Your task to perform on an android device: Add "beats solo 3" to the cart on newegg Image 0: 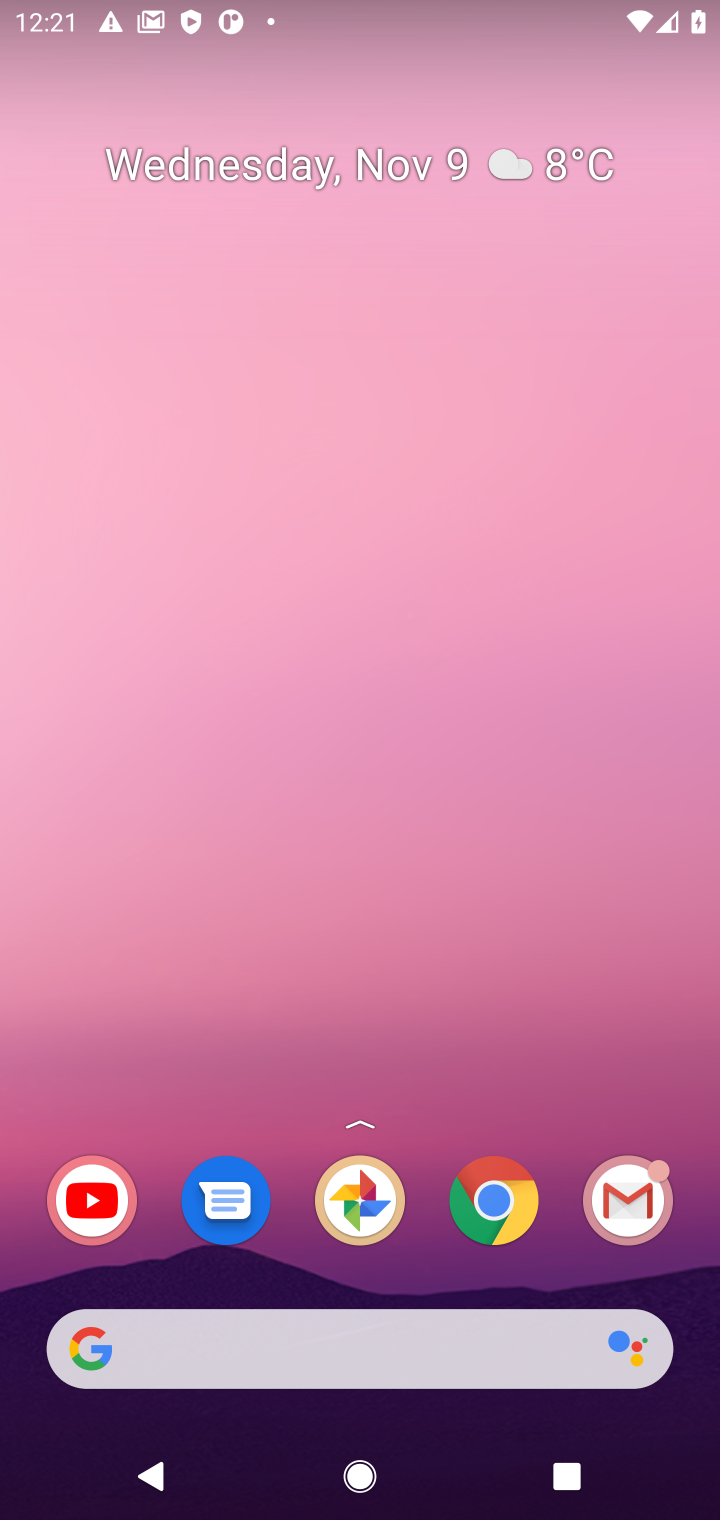
Step 0: click (491, 1374)
Your task to perform on an android device: Add "beats solo 3" to the cart on newegg Image 1: 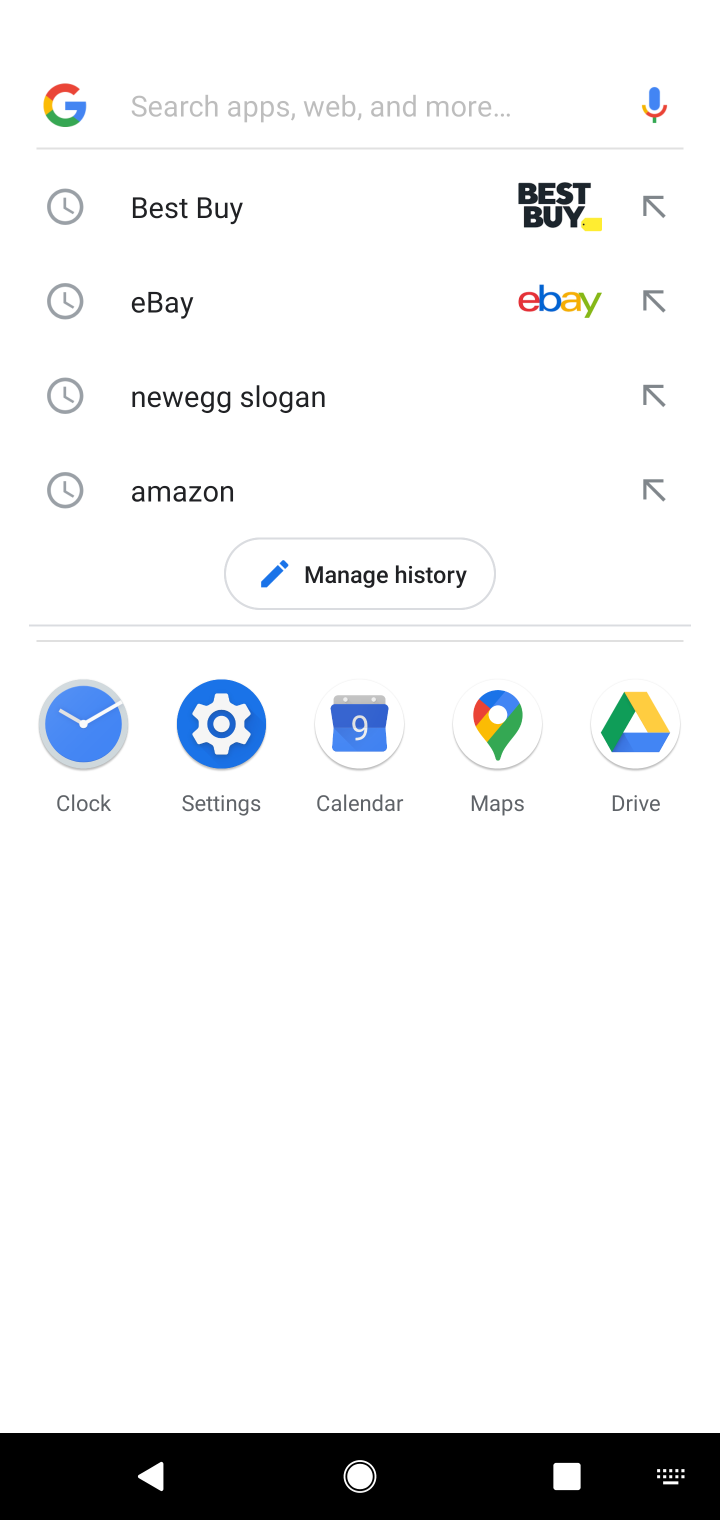
Step 1: type "newgee"
Your task to perform on an android device: Add "beats solo 3" to the cart on newegg Image 2: 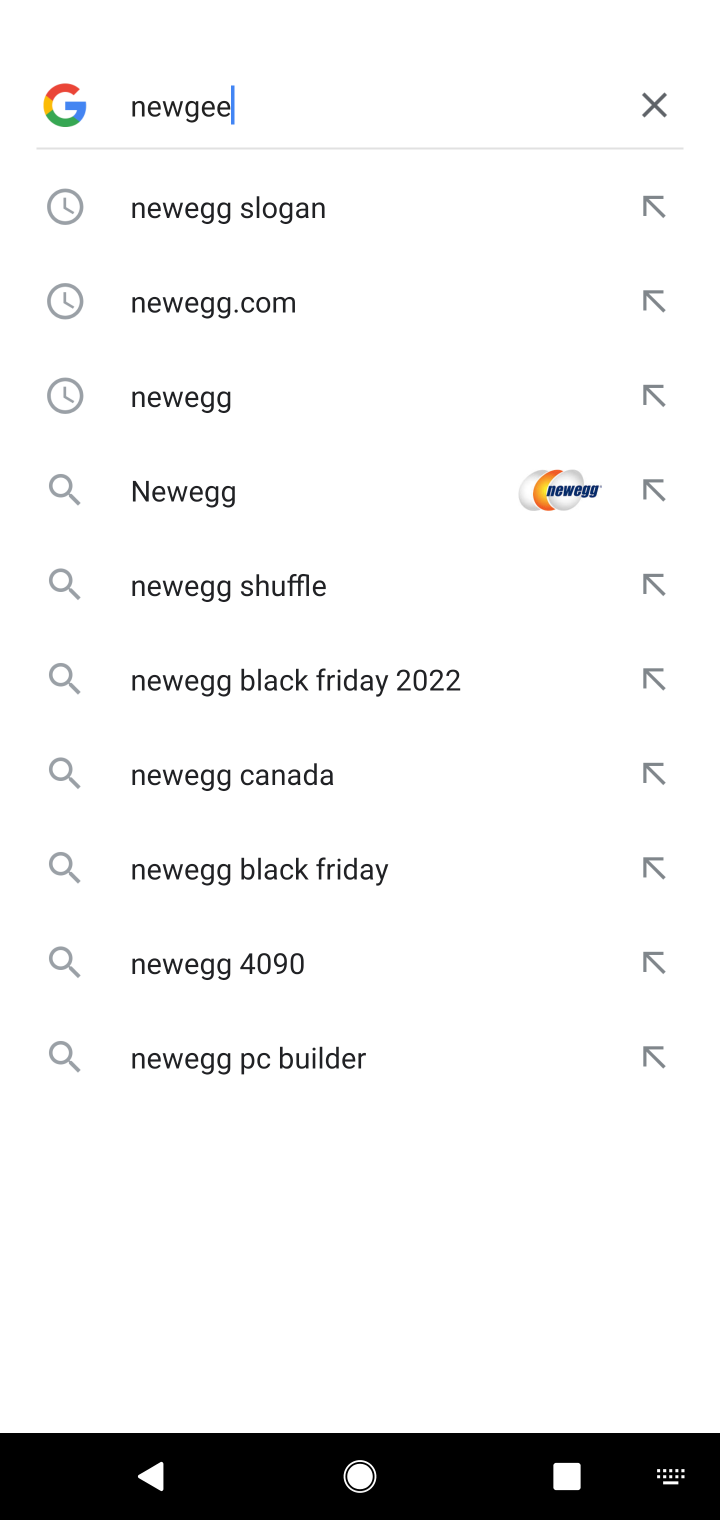
Step 2: click (210, 397)
Your task to perform on an android device: Add "beats solo 3" to the cart on newegg Image 3: 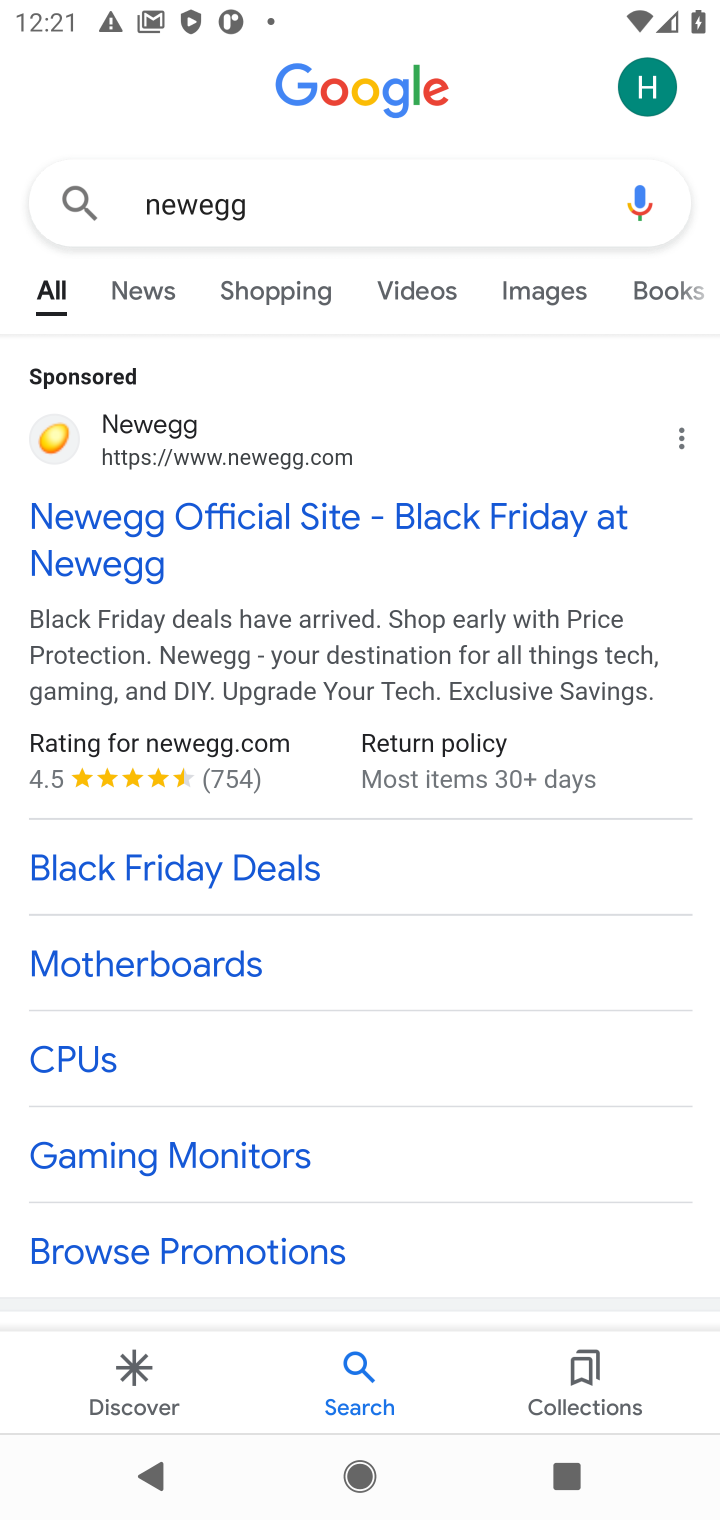
Step 3: click (190, 545)
Your task to perform on an android device: Add "beats solo 3" to the cart on newegg Image 4: 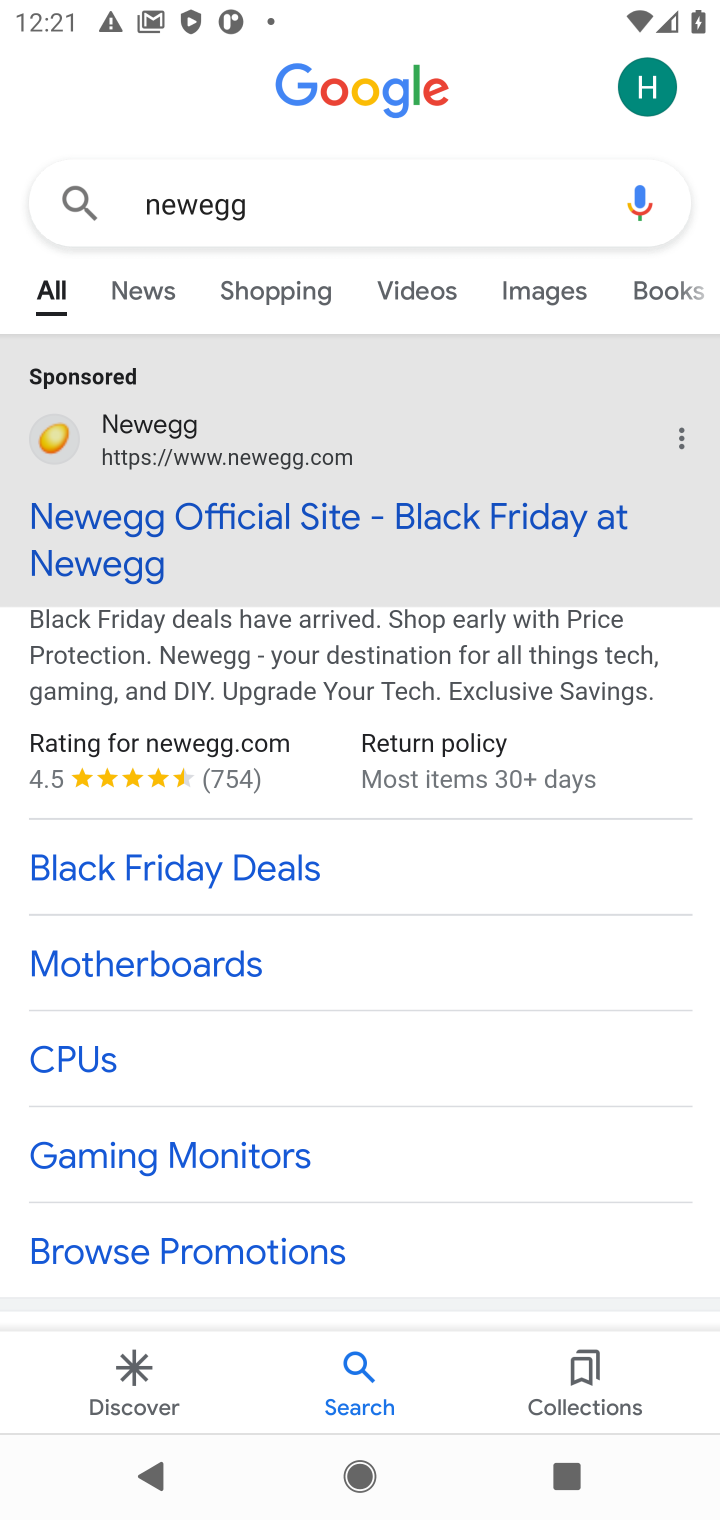
Step 4: task complete